Your task to perform on an android device: turn notification dots off Image 0: 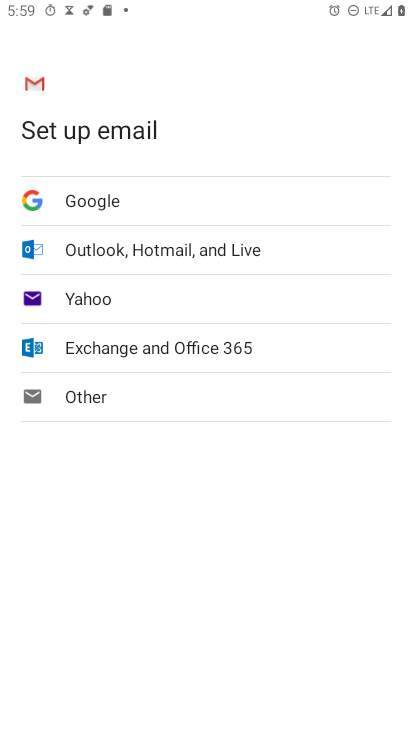
Step 0: press home button
Your task to perform on an android device: turn notification dots off Image 1: 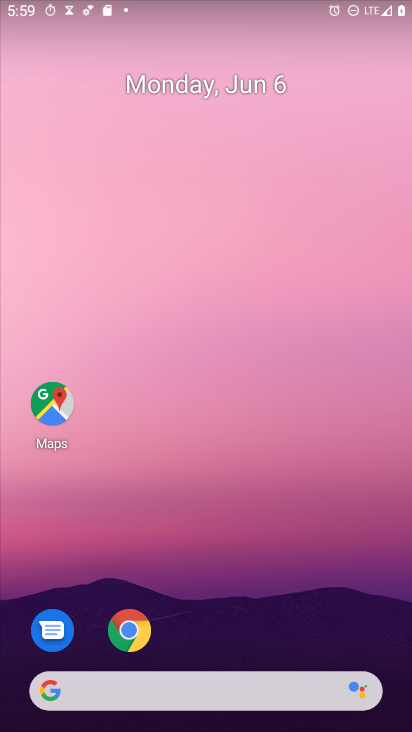
Step 1: drag from (283, 525) to (186, 6)
Your task to perform on an android device: turn notification dots off Image 2: 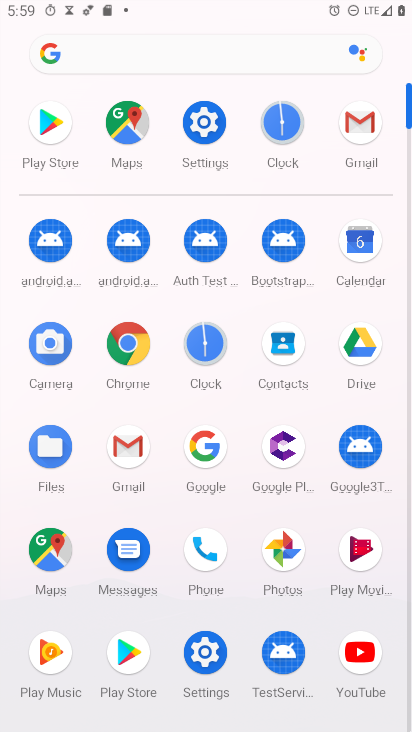
Step 2: click (207, 133)
Your task to perform on an android device: turn notification dots off Image 3: 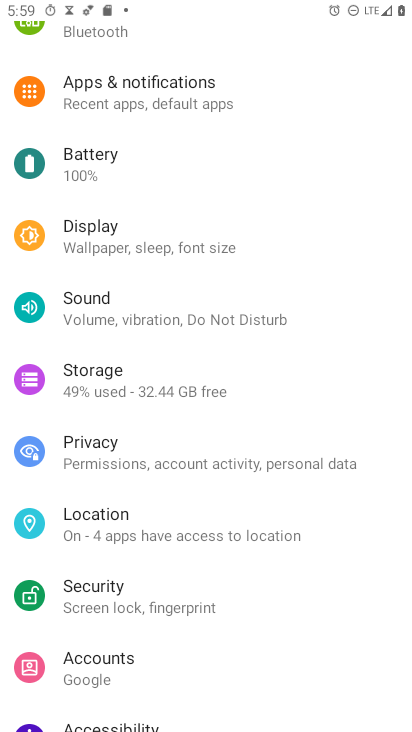
Step 3: click (191, 99)
Your task to perform on an android device: turn notification dots off Image 4: 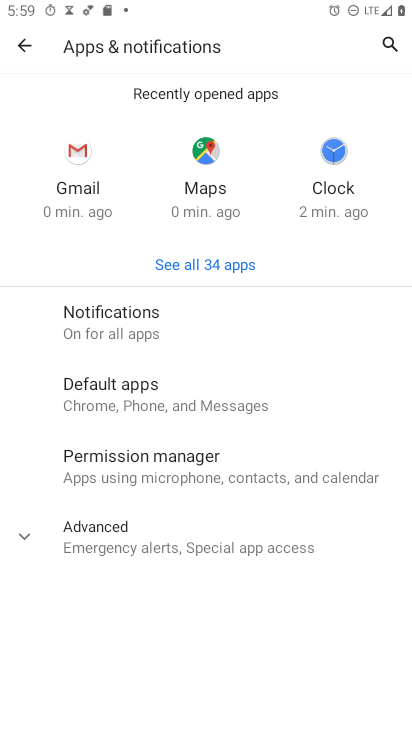
Step 4: click (210, 321)
Your task to perform on an android device: turn notification dots off Image 5: 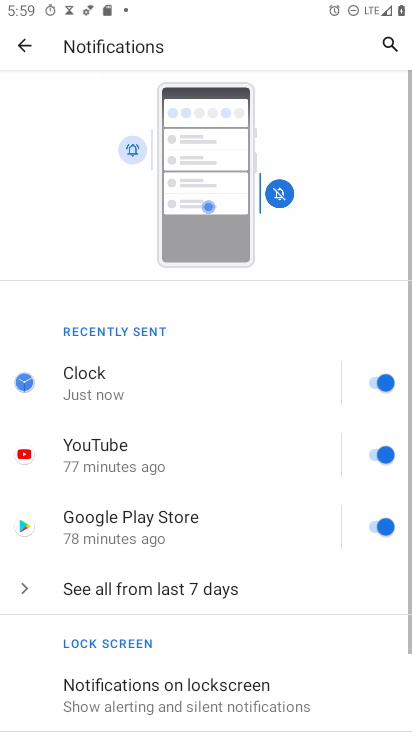
Step 5: drag from (210, 599) to (241, 42)
Your task to perform on an android device: turn notification dots off Image 6: 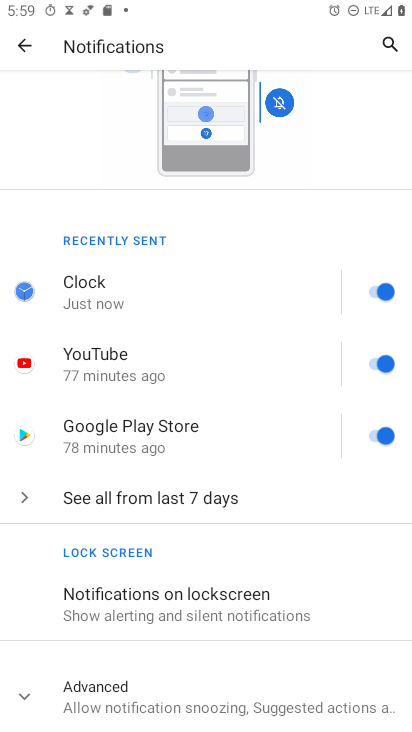
Step 6: click (228, 699)
Your task to perform on an android device: turn notification dots off Image 7: 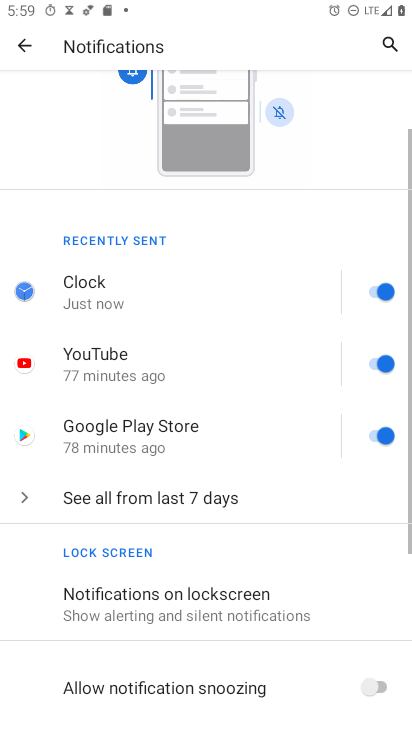
Step 7: task complete